Your task to perform on an android device: Go to network settings Image 0: 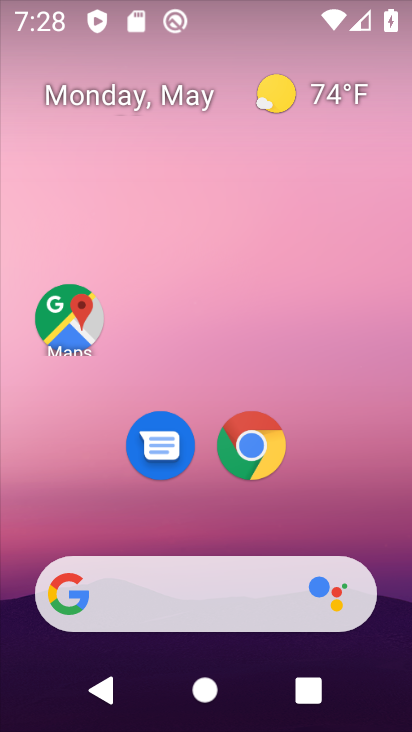
Step 0: press home button
Your task to perform on an android device: Go to network settings Image 1: 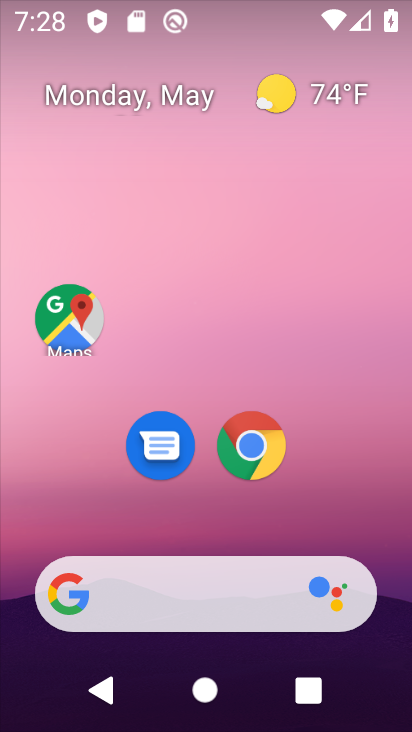
Step 1: drag from (157, 608) to (307, 69)
Your task to perform on an android device: Go to network settings Image 2: 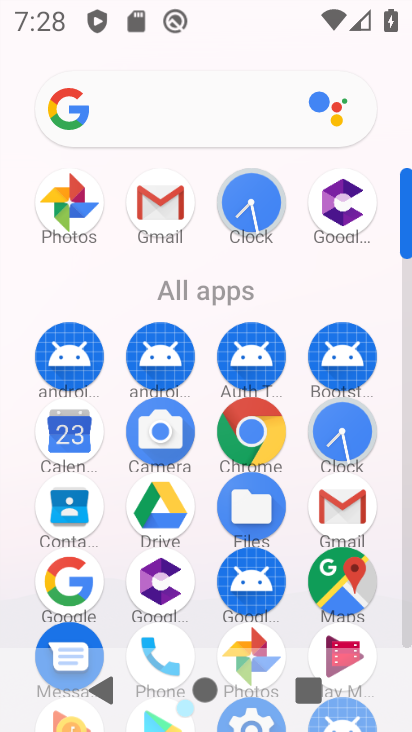
Step 2: drag from (225, 581) to (341, 121)
Your task to perform on an android device: Go to network settings Image 3: 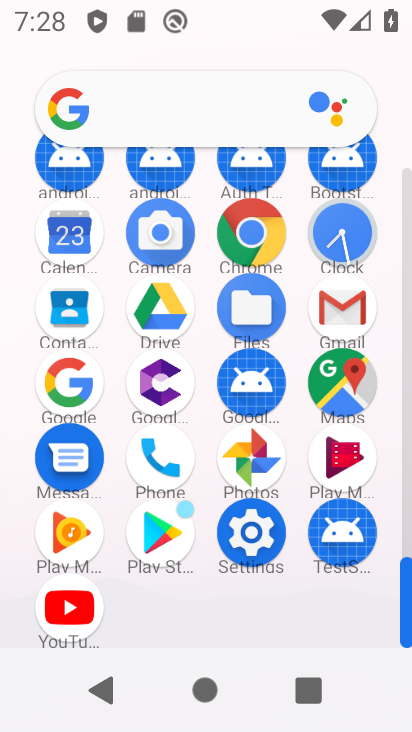
Step 3: click (249, 528)
Your task to perform on an android device: Go to network settings Image 4: 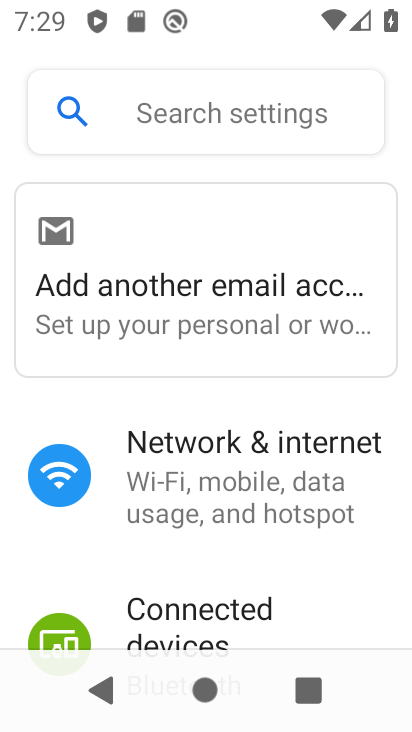
Step 4: click (225, 449)
Your task to perform on an android device: Go to network settings Image 5: 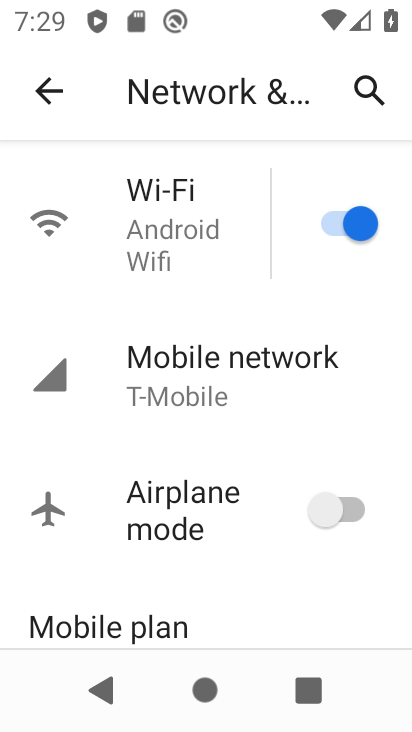
Step 5: click (217, 376)
Your task to perform on an android device: Go to network settings Image 6: 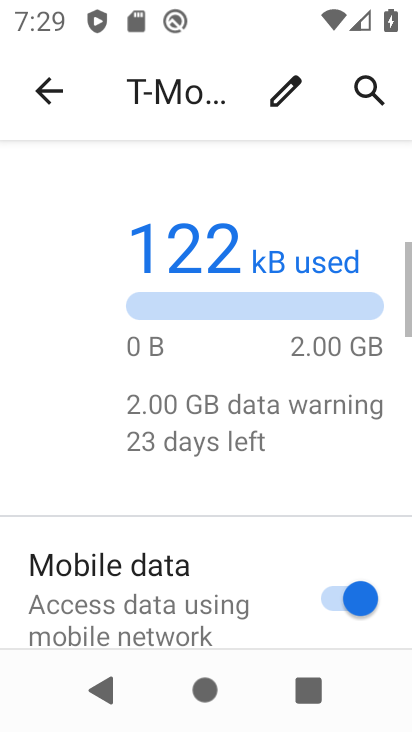
Step 6: task complete